Your task to perform on an android device: What's on my calendar tomorrow? Image 0: 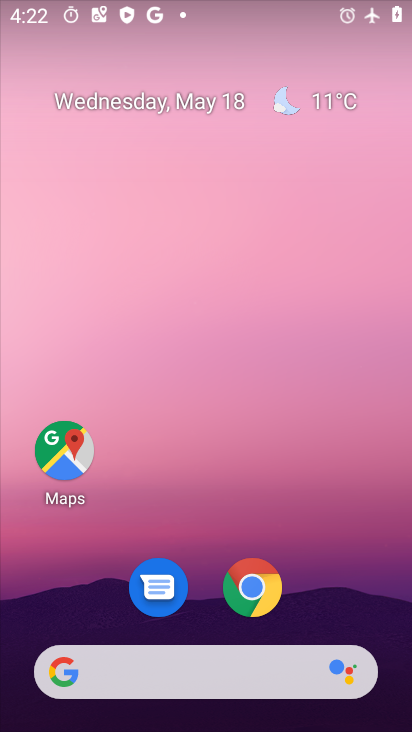
Step 0: drag from (243, 673) to (234, 206)
Your task to perform on an android device: What's on my calendar tomorrow? Image 1: 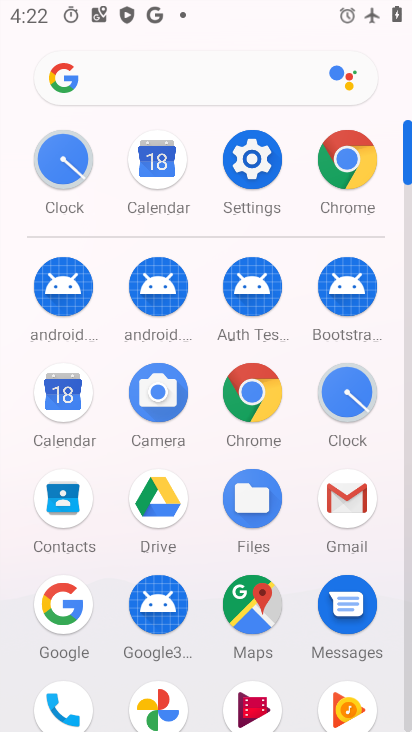
Step 1: click (65, 398)
Your task to perform on an android device: What's on my calendar tomorrow? Image 2: 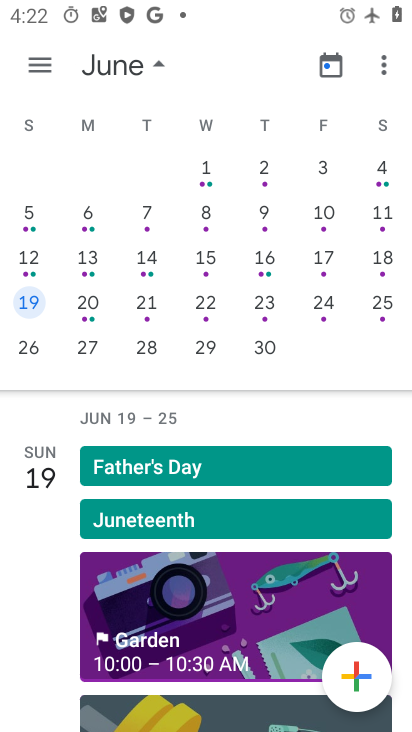
Step 2: task complete